Your task to perform on an android device: open the mobile data screen to see how much data has been used Image 0: 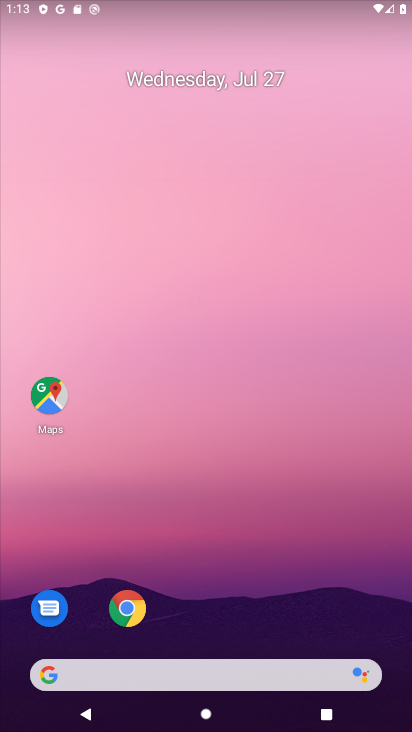
Step 0: drag from (179, 439) to (182, 67)
Your task to perform on an android device: open the mobile data screen to see how much data has been used Image 1: 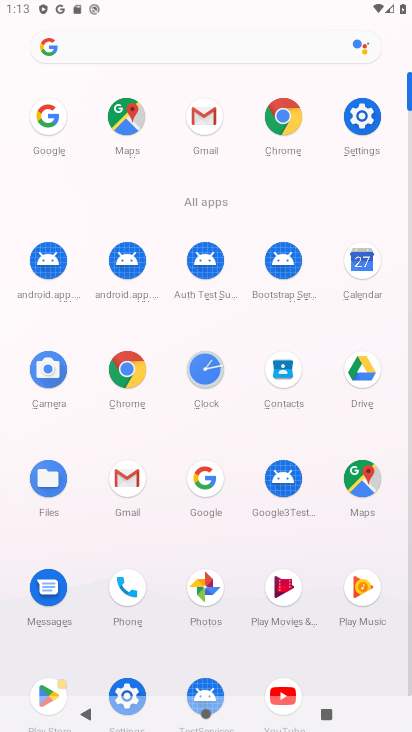
Step 1: click (358, 128)
Your task to perform on an android device: open the mobile data screen to see how much data has been used Image 2: 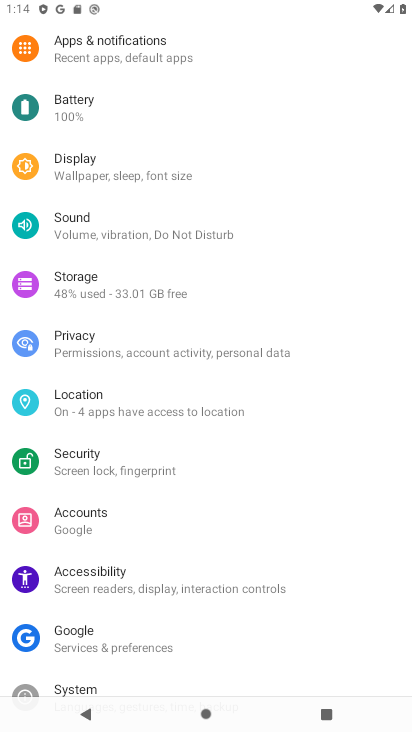
Step 2: drag from (132, 261) to (130, 548)
Your task to perform on an android device: open the mobile data screen to see how much data has been used Image 3: 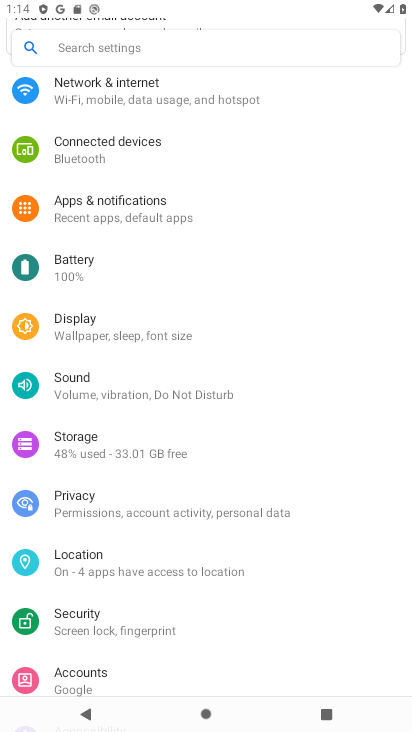
Step 3: click (113, 88)
Your task to perform on an android device: open the mobile data screen to see how much data has been used Image 4: 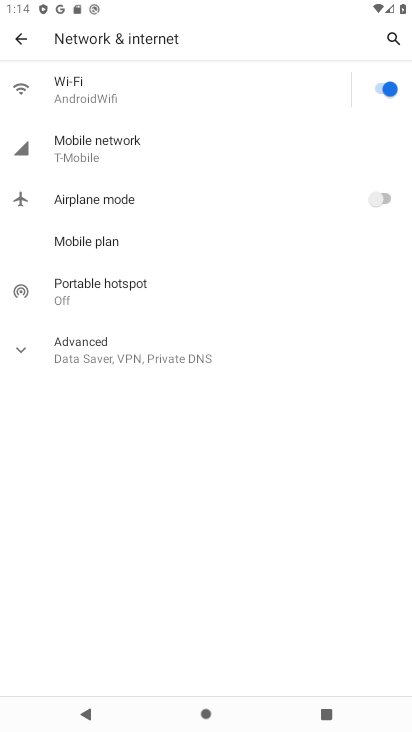
Step 4: click (69, 136)
Your task to perform on an android device: open the mobile data screen to see how much data has been used Image 5: 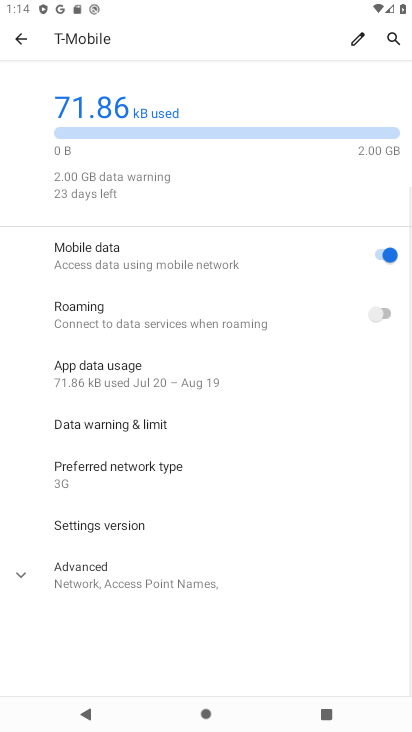
Step 5: task complete